Your task to perform on an android device: all mails in gmail Image 0: 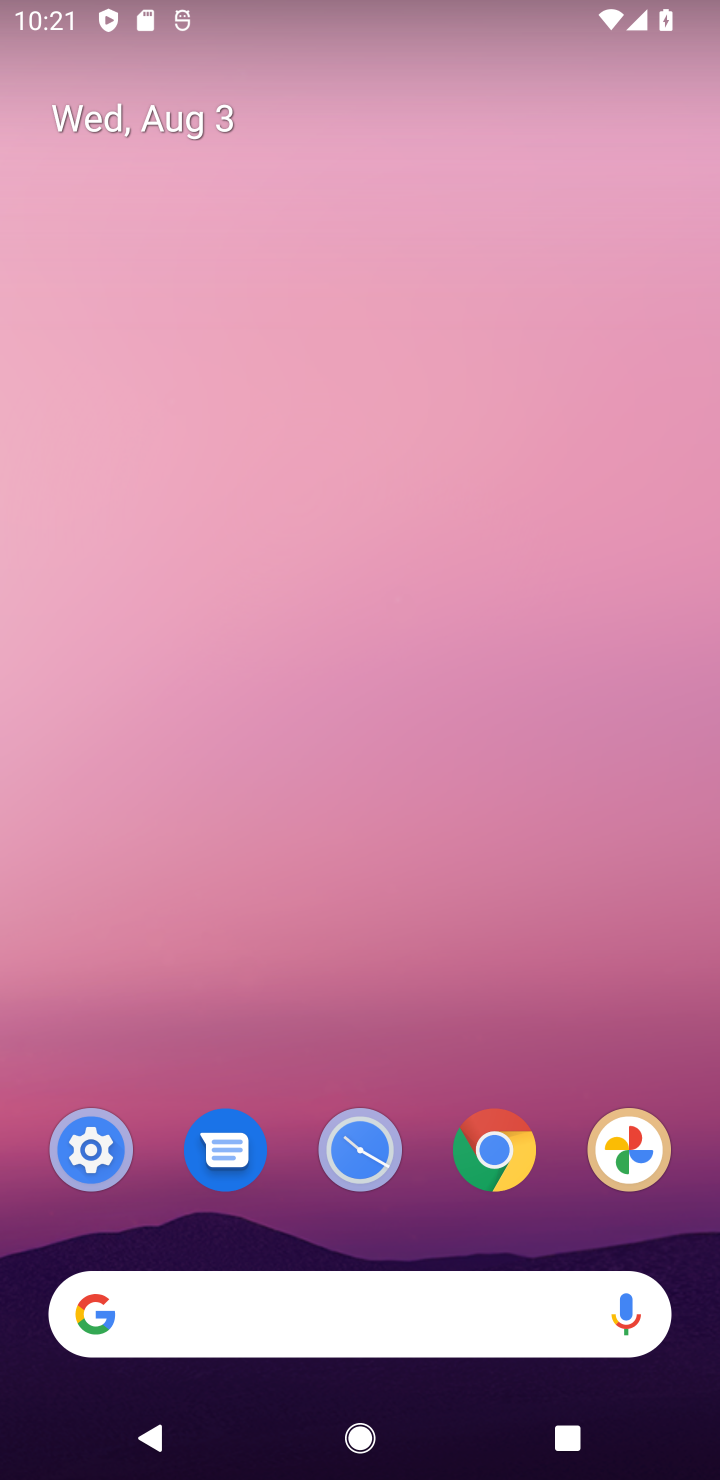
Step 0: drag from (573, 993) to (485, 332)
Your task to perform on an android device: all mails in gmail Image 1: 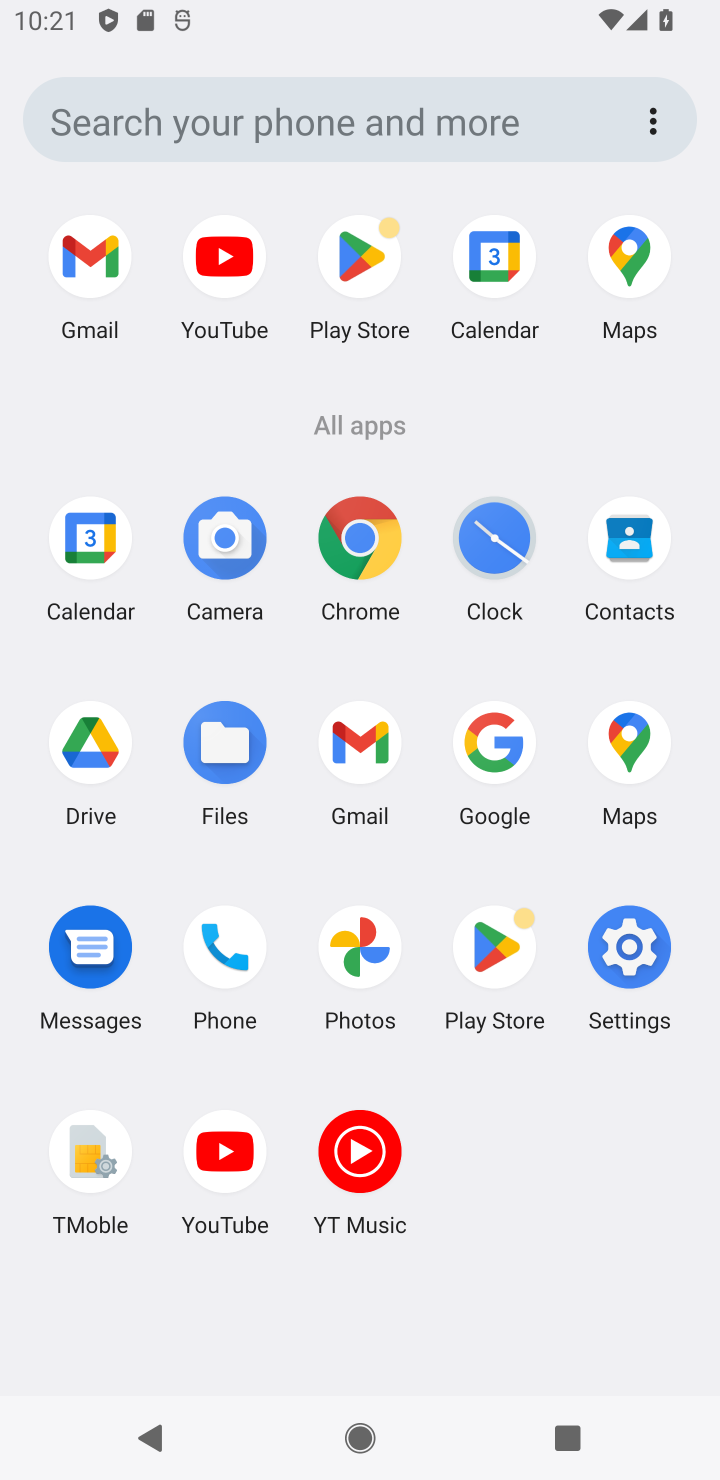
Step 1: click (105, 248)
Your task to perform on an android device: all mails in gmail Image 2: 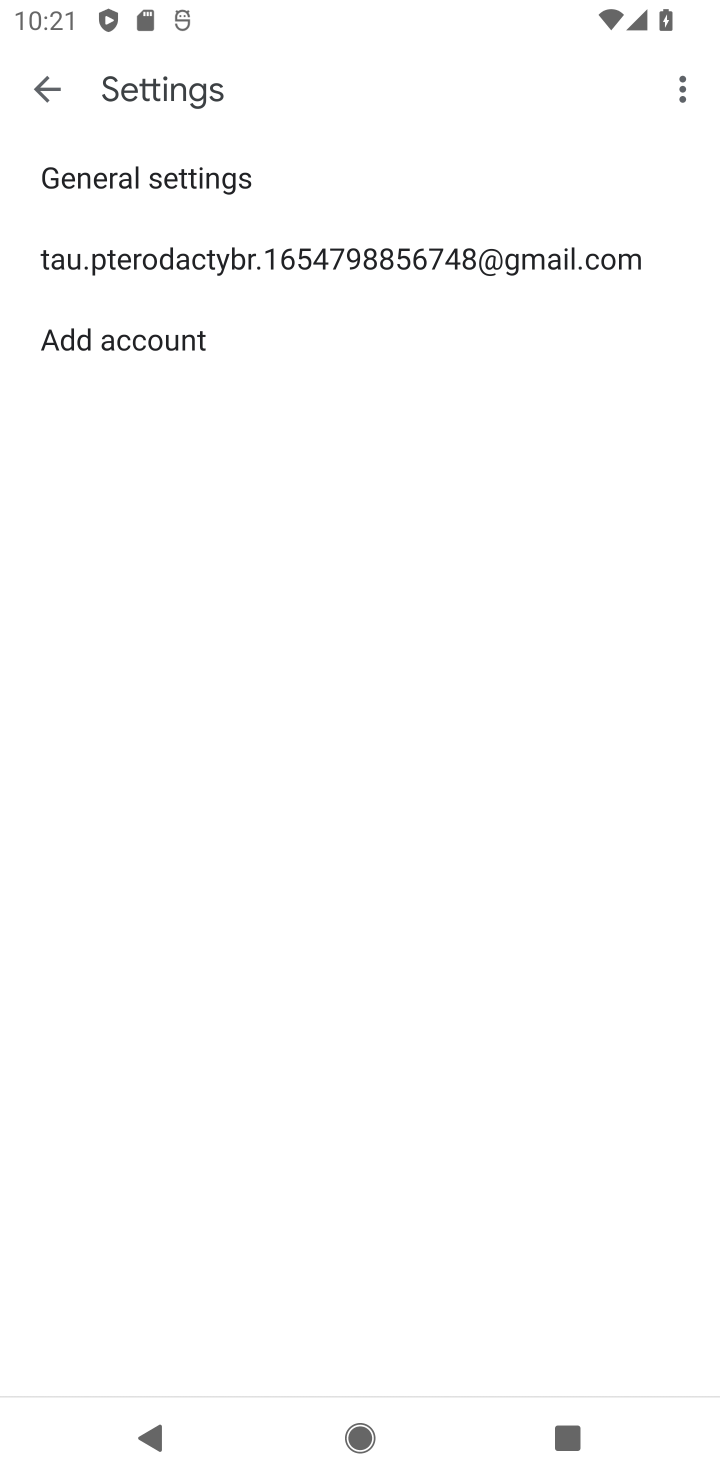
Step 2: press back button
Your task to perform on an android device: all mails in gmail Image 3: 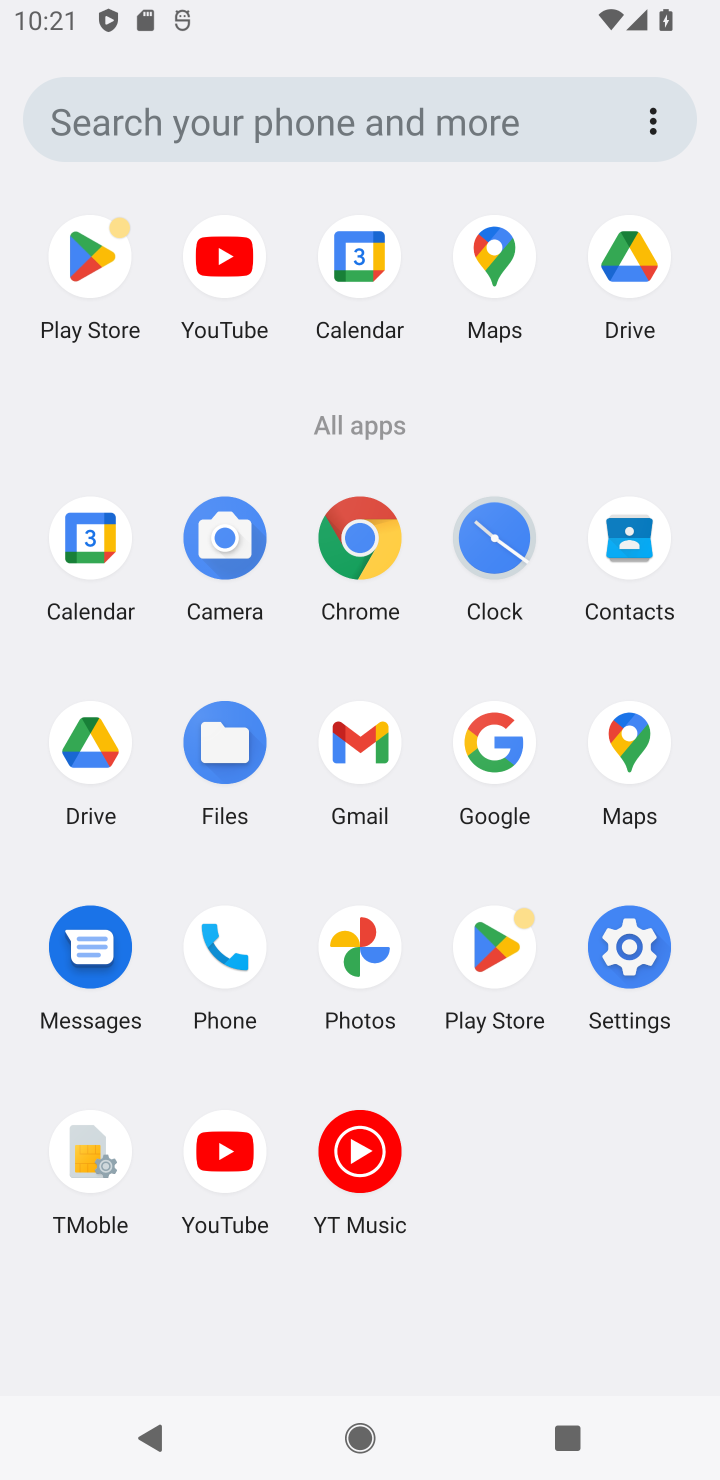
Step 3: click (377, 769)
Your task to perform on an android device: all mails in gmail Image 4: 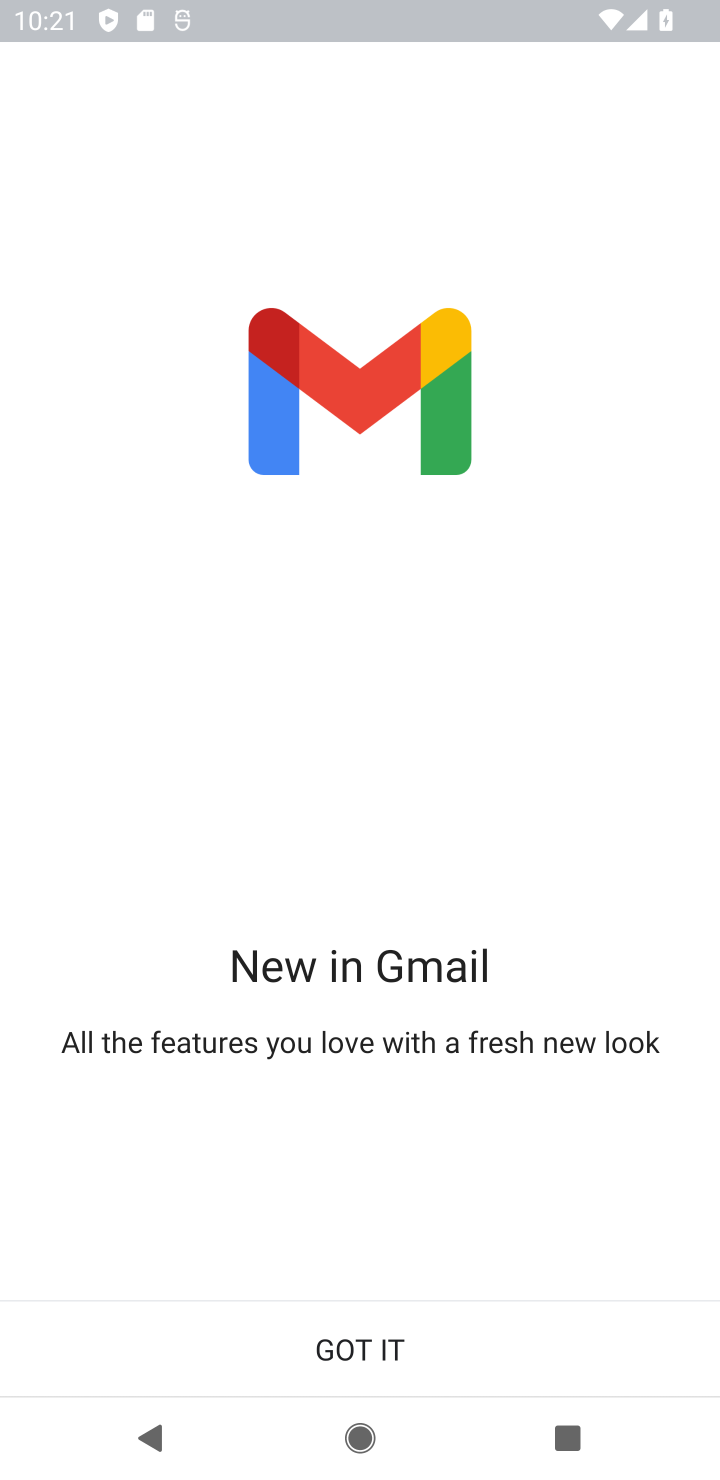
Step 4: click (353, 1354)
Your task to perform on an android device: all mails in gmail Image 5: 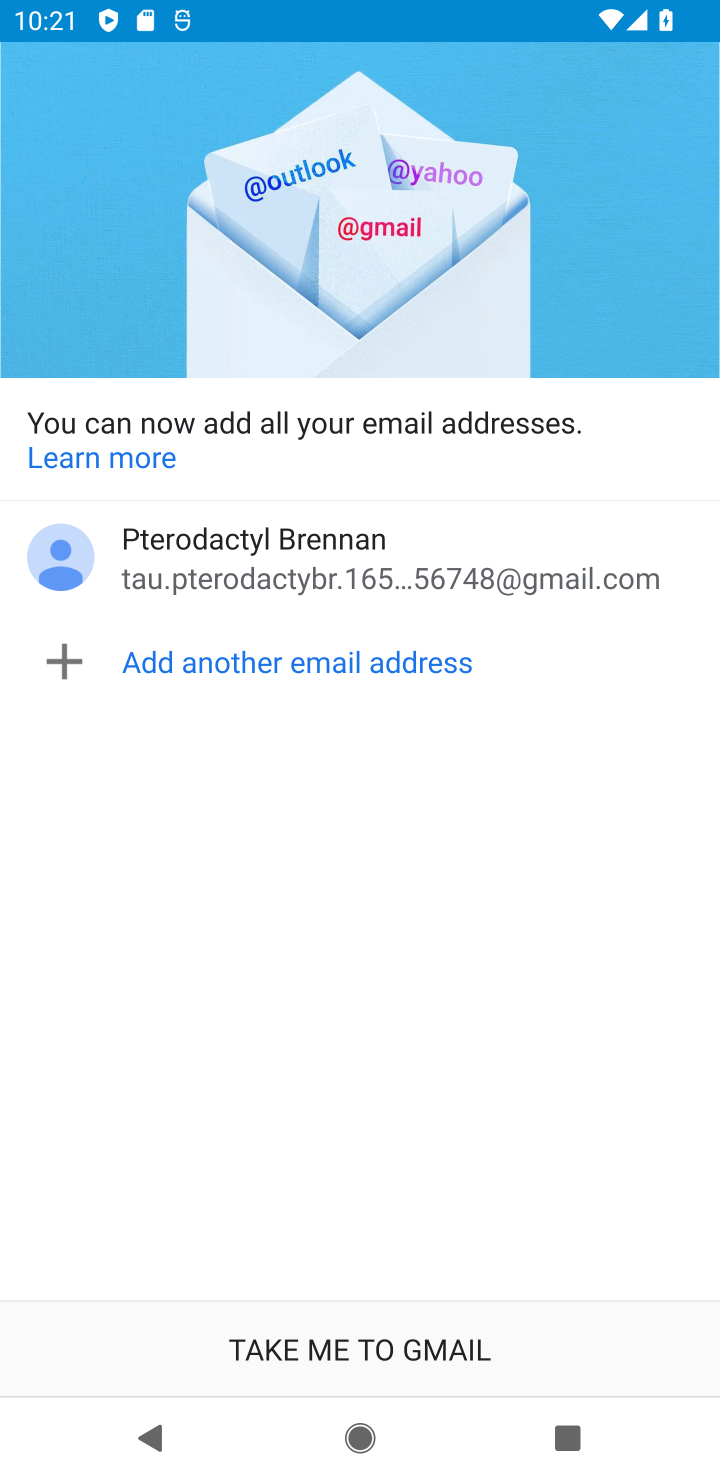
Step 5: click (400, 1348)
Your task to perform on an android device: all mails in gmail Image 6: 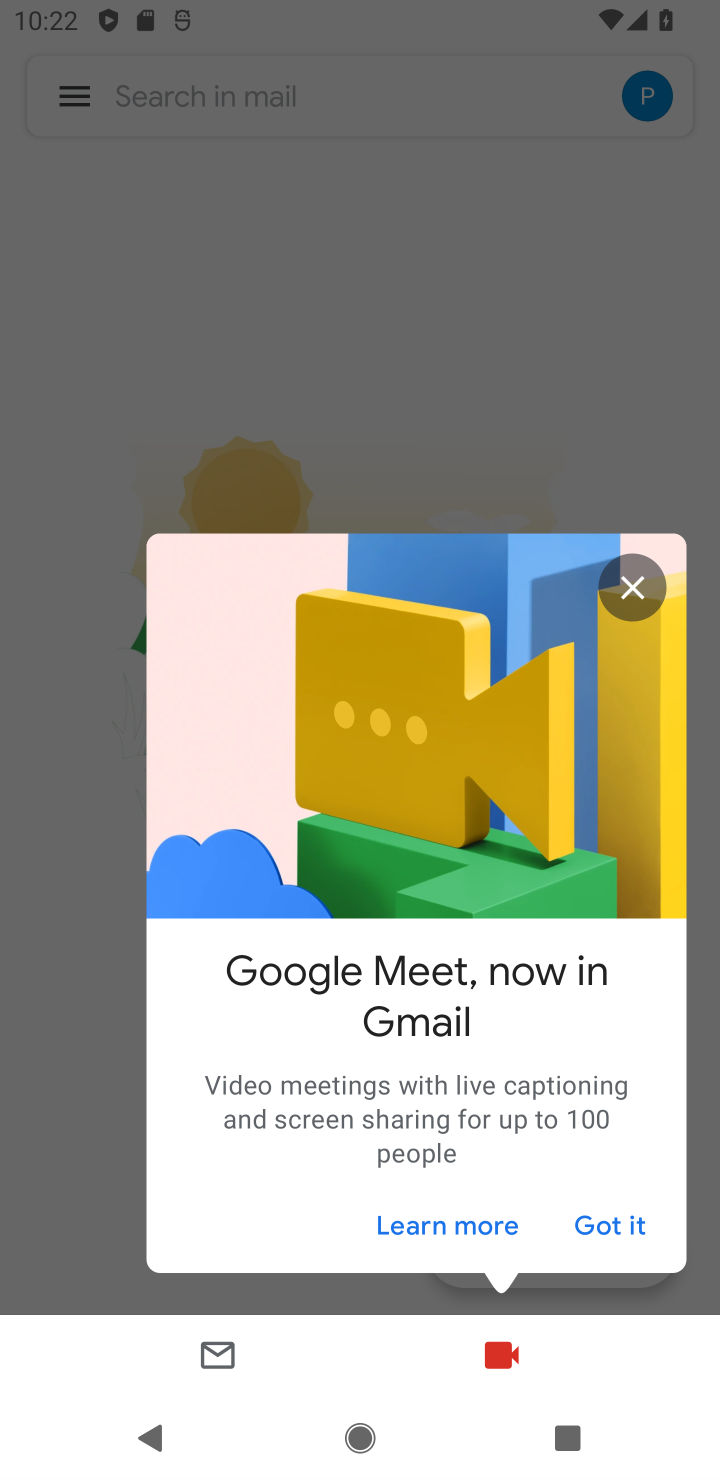
Step 6: click (627, 591)
Your task to perform on an android device: all mails in gmail Image 7: 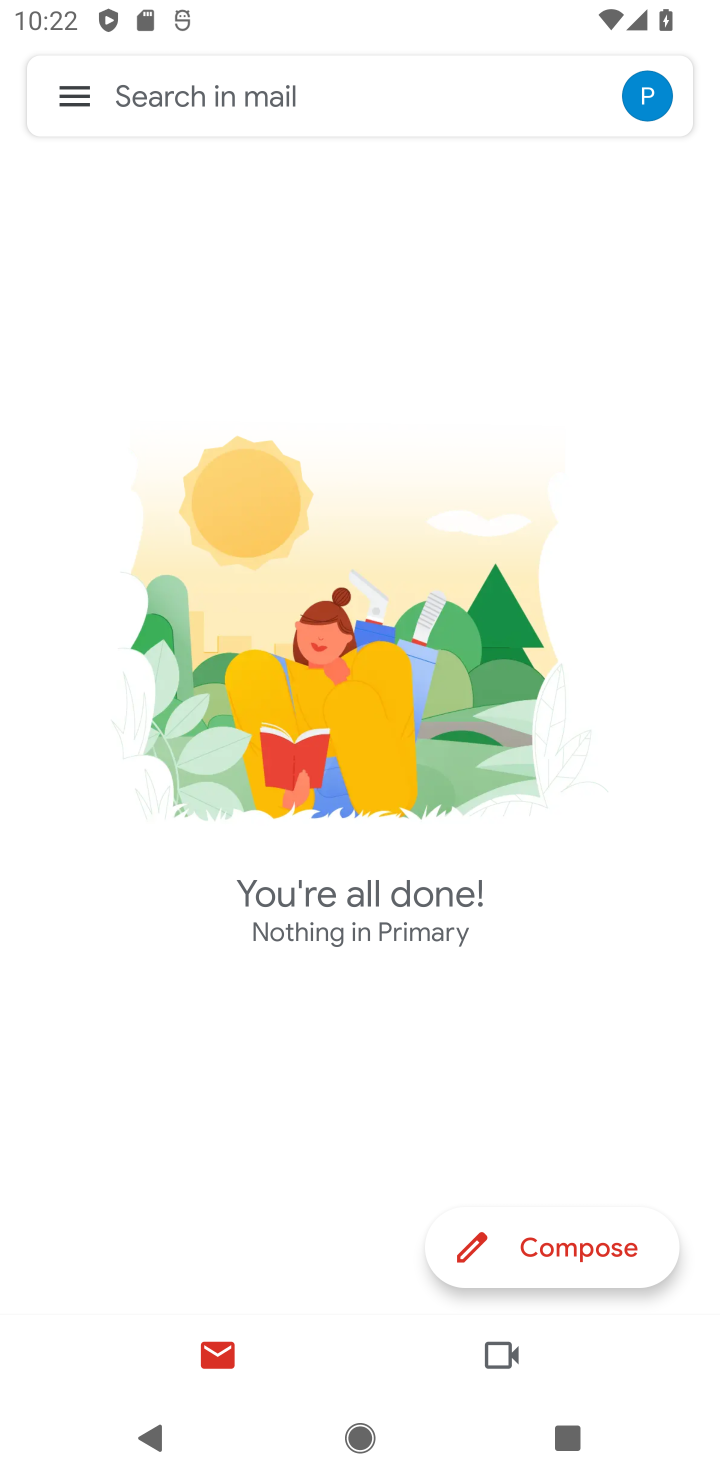
Step 7: click (79, 91)
Your task to perform on an android device: all mails in gmail Image 8: 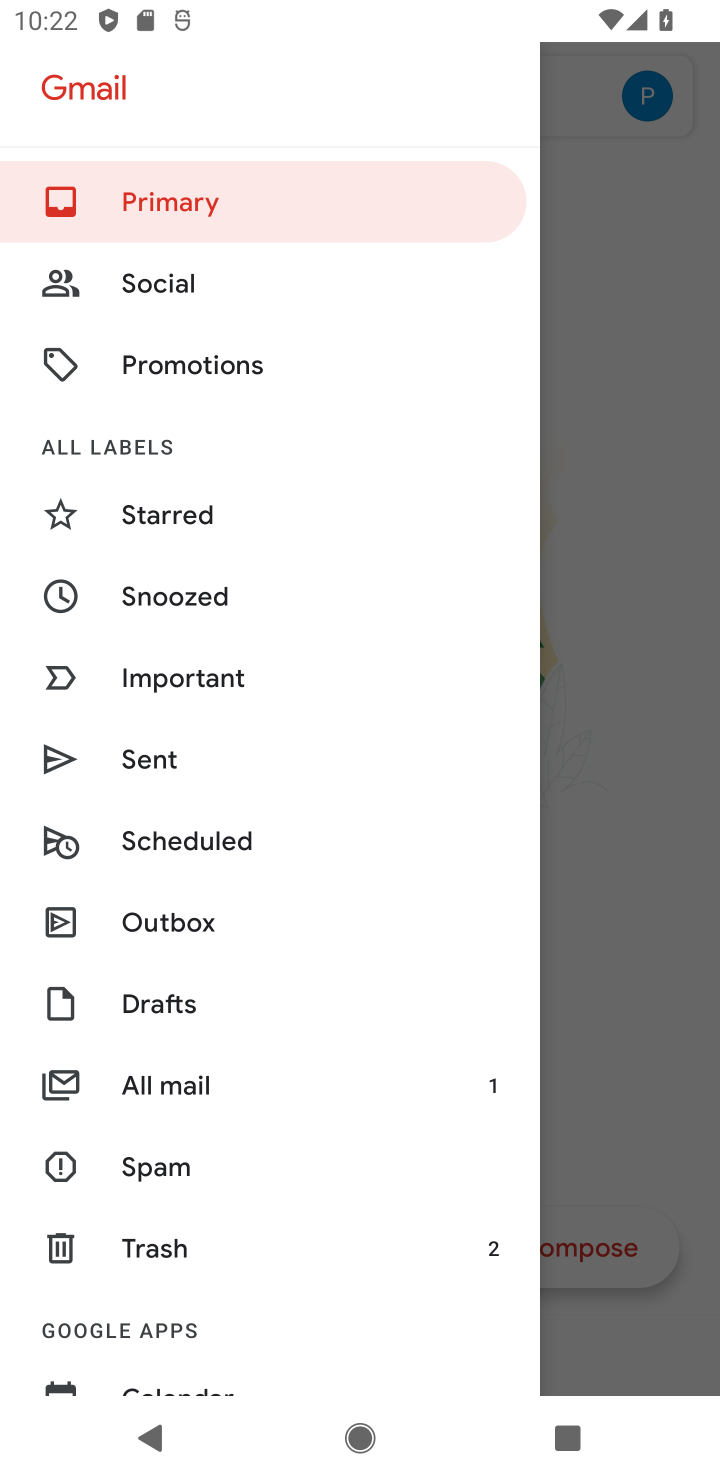
Step 8: click (222, 1085)
Your task to perform on an android device: all mails in gmail Image 9: 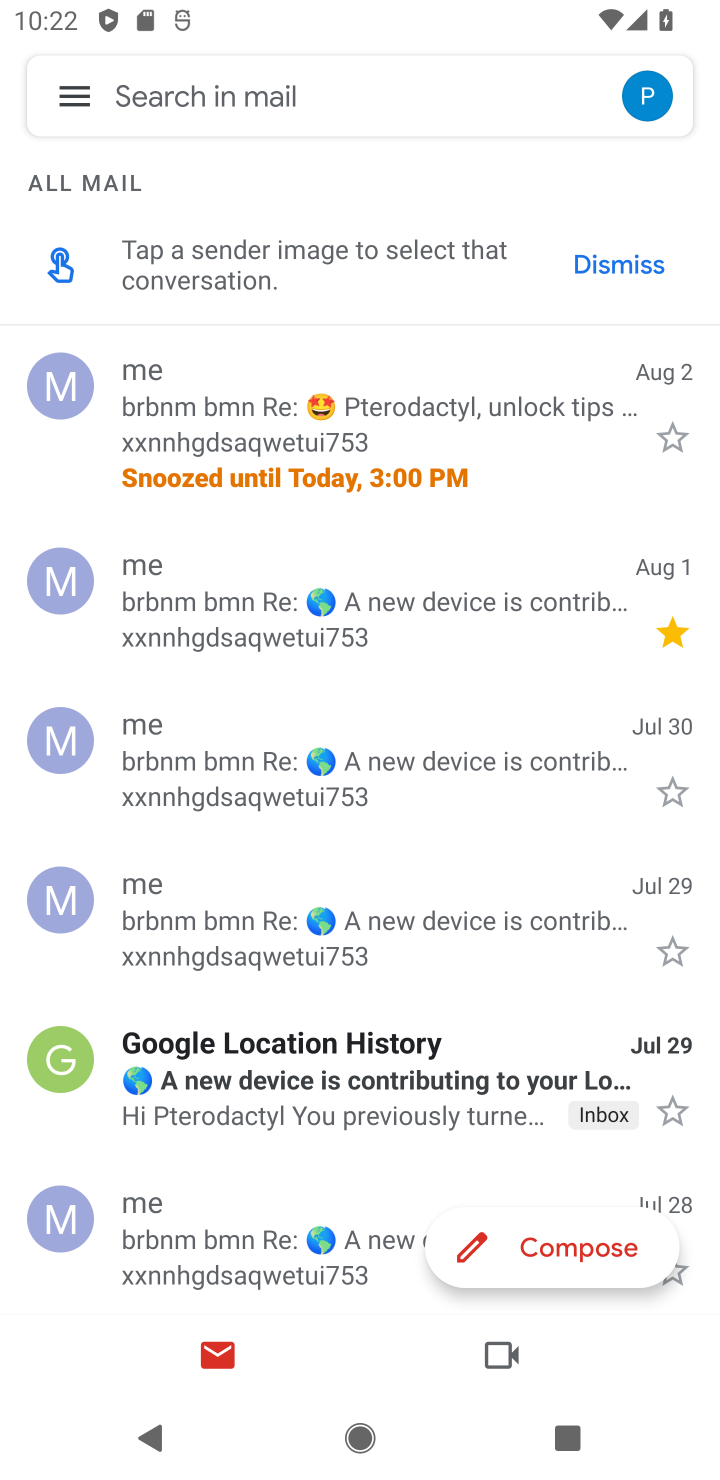
Step 9: task complete